Your task to perform on an android device: add a contact in the contacts app Image 0: 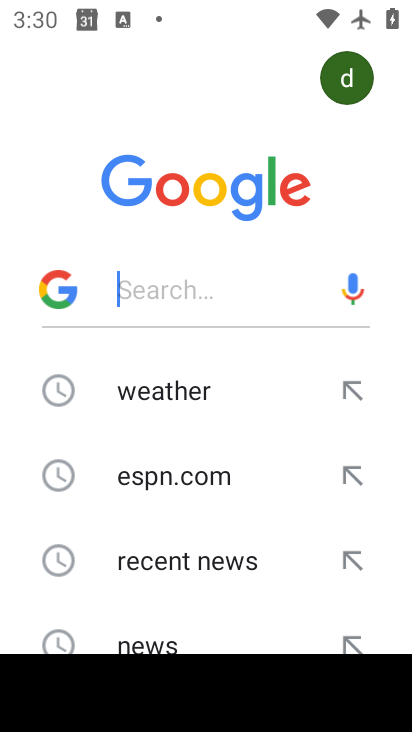
Step 0: press home button
Your task to perform on an android device: add a contact in the contacts app Image 1: 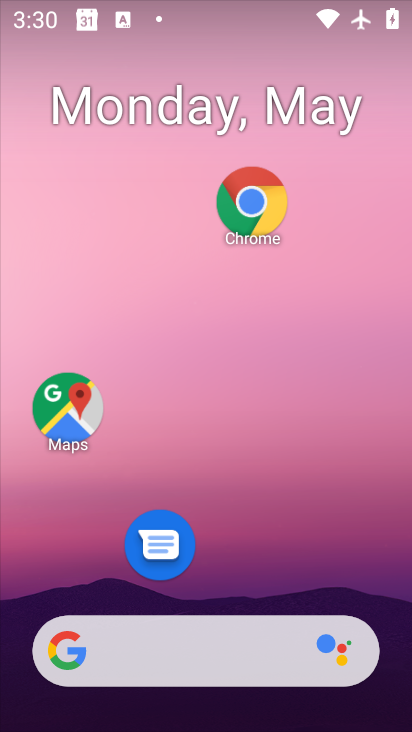
Step 1: drag from (221, 586) to (251, 244)
Your task to perform on an android device: add a contact in the contacts app Image 2: 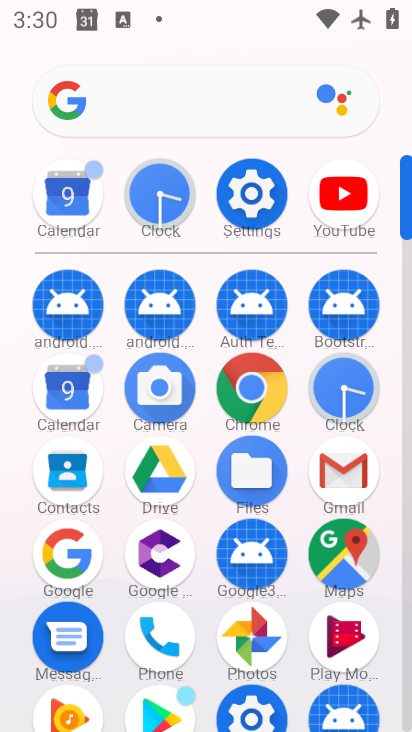
Step 2: click (65, 459)
Your task to perform on an android device: add a contact in the contacts app Image 3: 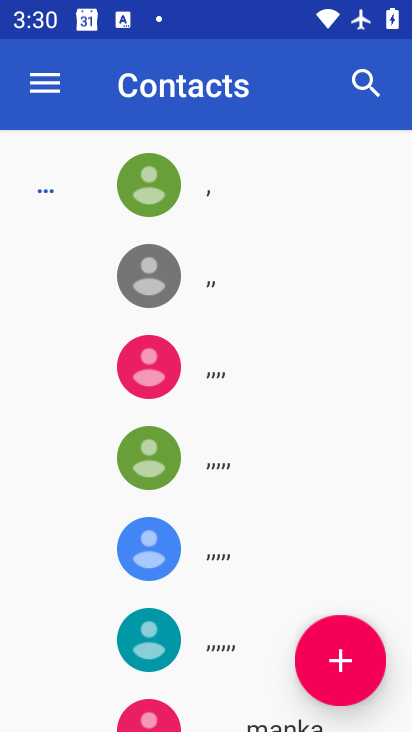
Step 3: click (333, 655)
Your task to perform on an android device: add a contact in the contacts app Image 4: 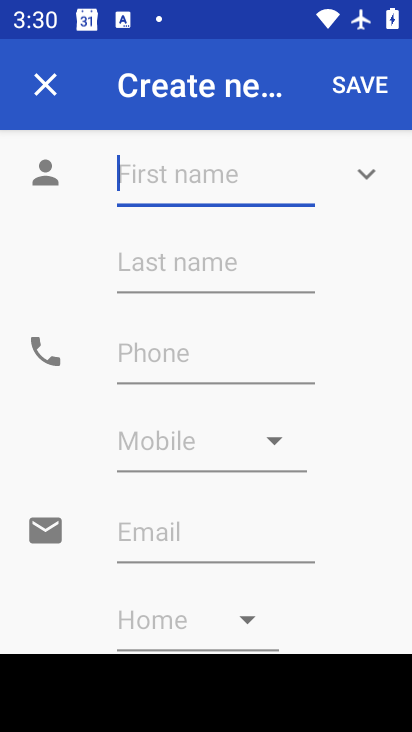
Step 4: type "fdhyhmuu"
Your task to perform on an android device: add a contact in the contacts app Image 5: 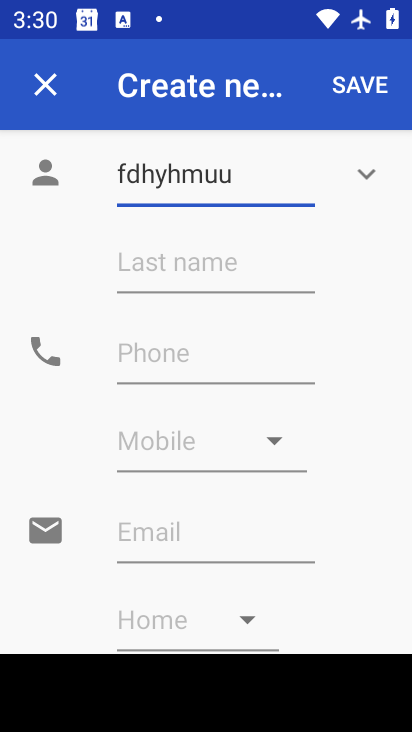
Step 5: click (216, 359)
Your task to perform on an android device: add a contact in the contacts app Image 6: 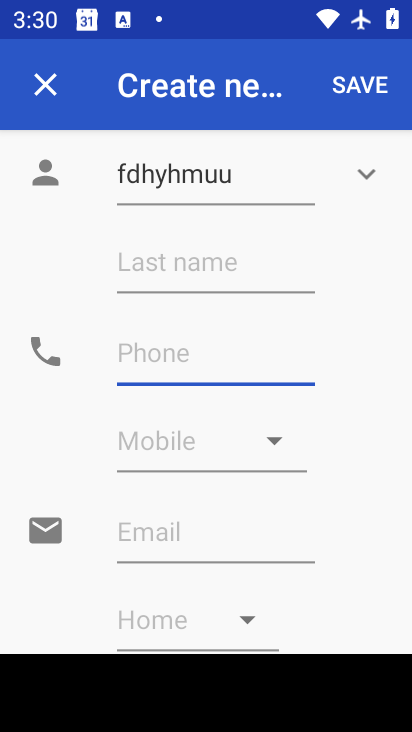
Step 6: type "6865865468"
Your task to perform on an android device: add a contact in the contacts app Image 7: 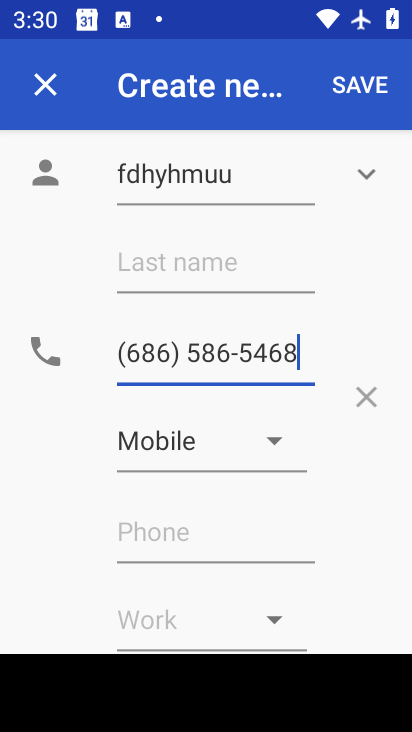
Step 7: click (348, 93)
Your task to perform on an android device: add a contact in the contacts app Image 8: 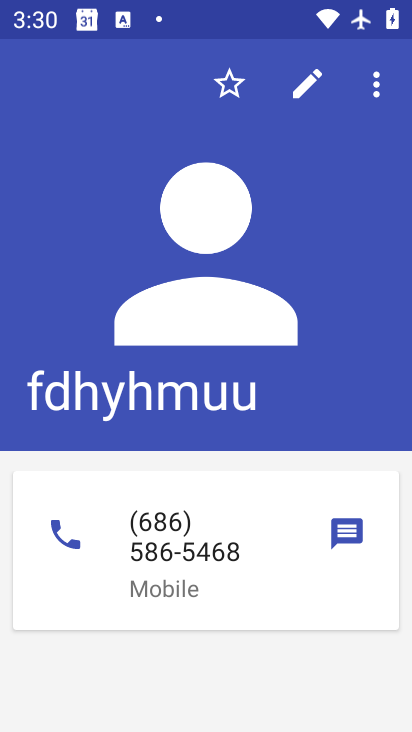
Step 8: task complete